Your task to perform on an android device: open sync settings in chrome Image 0: 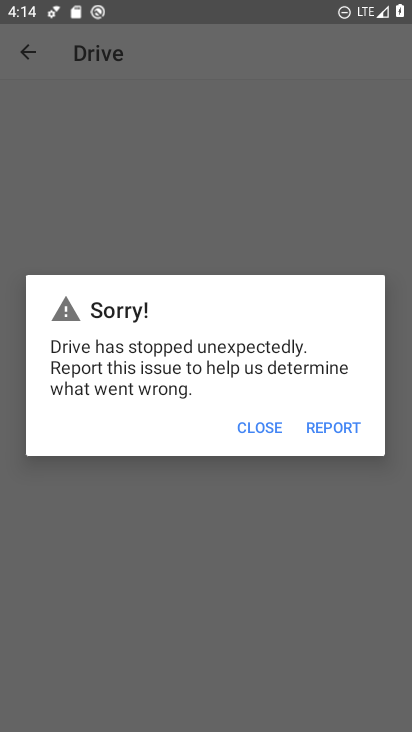
Step 0: press back button
Your task to perform on an android device: open sync settings in chrome Image 1: 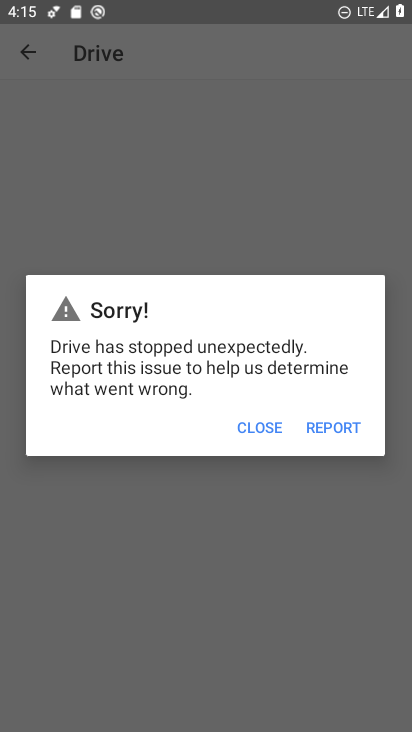
Step 1: press back button
Your task to perform on an android device: open sync settings in chrome Image 2: 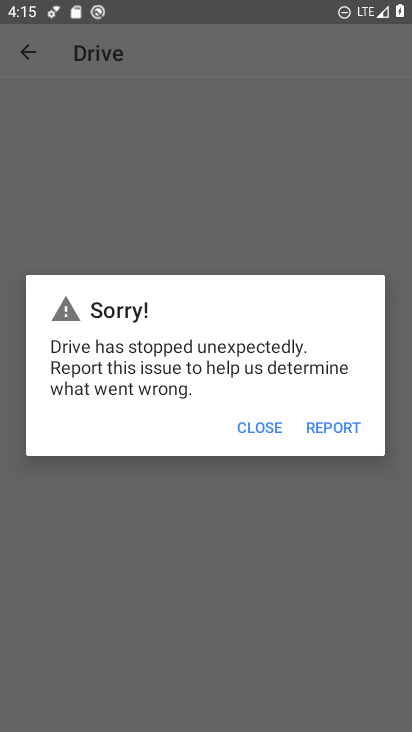
Step 2: press back button
Your task to perform on an android device: open sync settings in chrome Image 3: 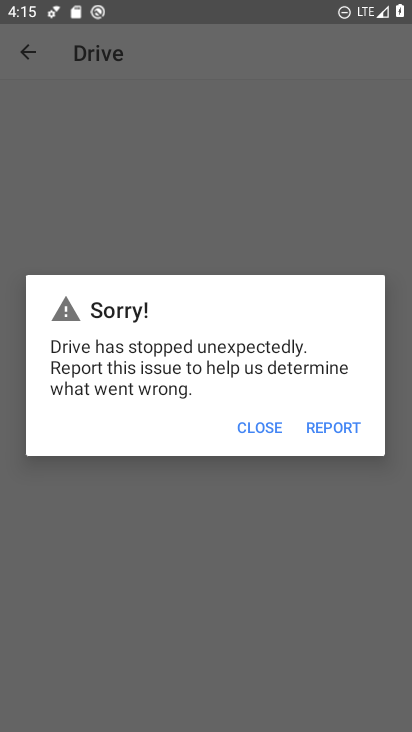
Step 3: press back button
Your task to perform on an android device: open sync settings in chrome Image 4: 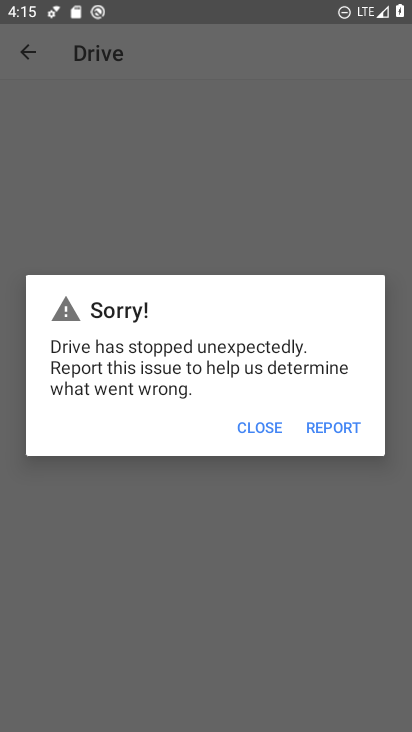
Step 4: press home button
Your task to perform on an android device: open sync settings in chrome Image 5: 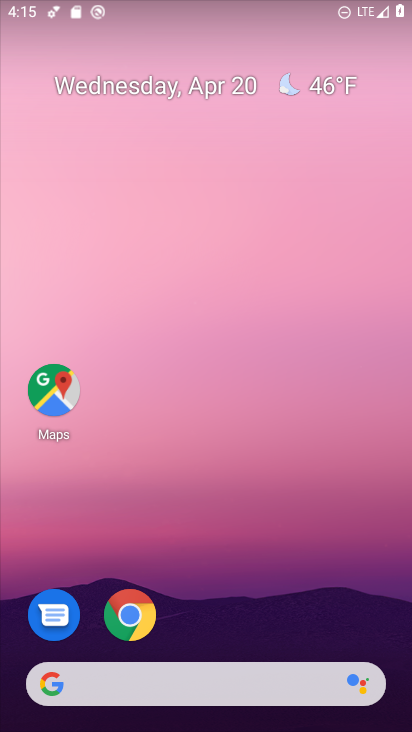
Step 5: click (136, 618)
Your task to perform on an android device: open sync settings in chrome Image 6: 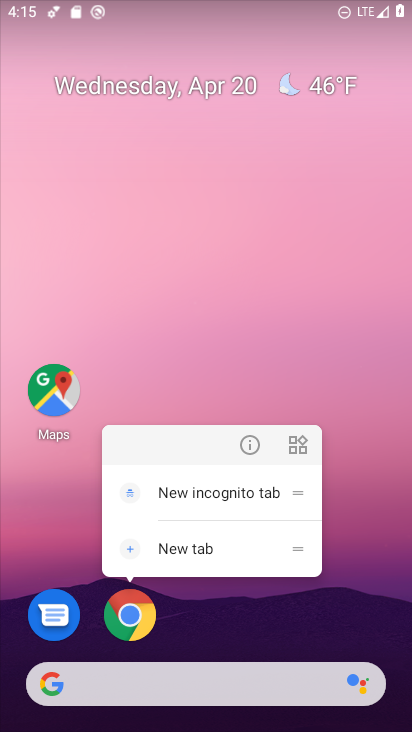
Step 6: click (139, 611)
Your task to perform on an android device: open sync settings in chrome Image 7: 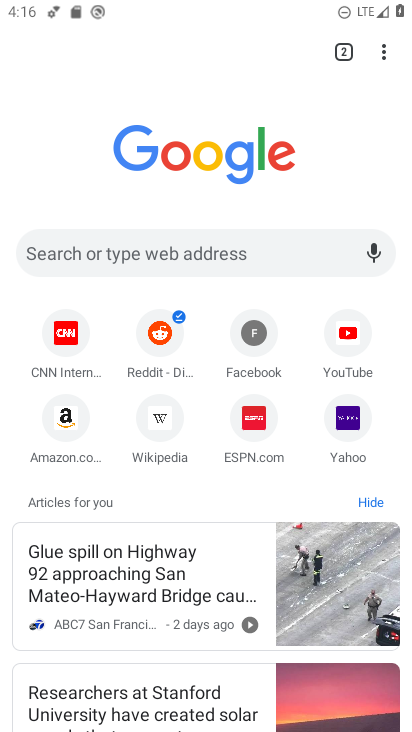
Step 7: drag from (378, 55) to (236, 495)
Your task to perform on an android device: open sync settings in chrome Image 8: 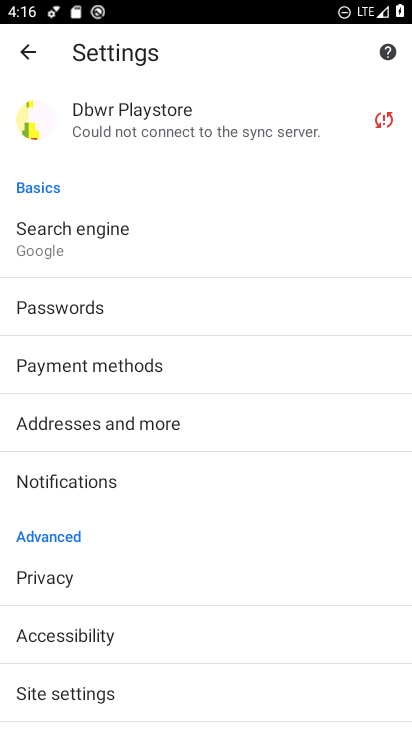
Step 8: click (146, 122)
Your task to perform on an android device: open sync settings in chrome Image 9: 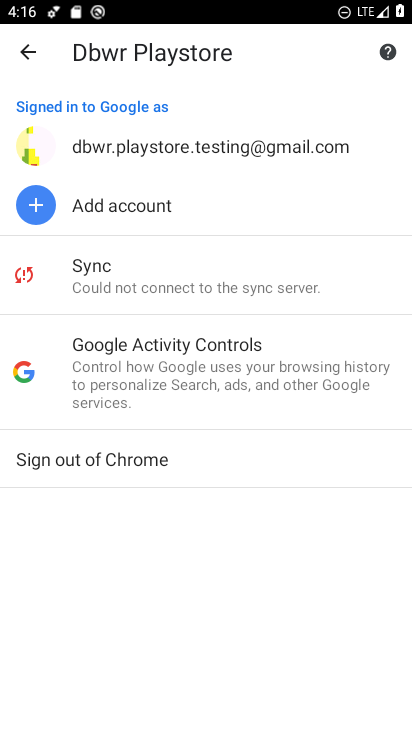
Step 9: task complete